Your task to perform on an android device: Go to calendar. Show me events next week Image 0: 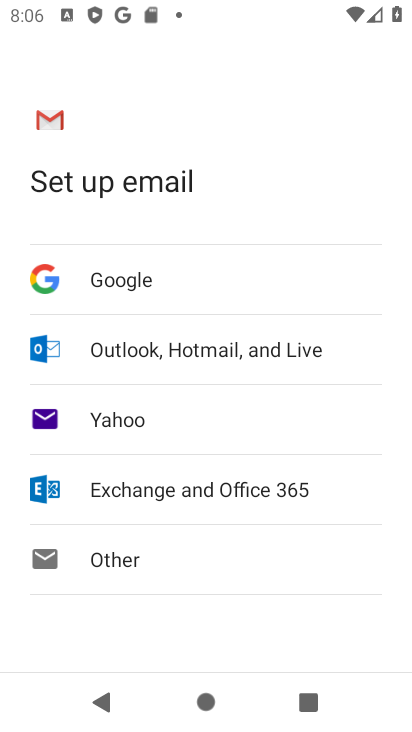
Step 0: press home button
Your task to perform on an android device: Go to calendar. Show me events next week Image 1: 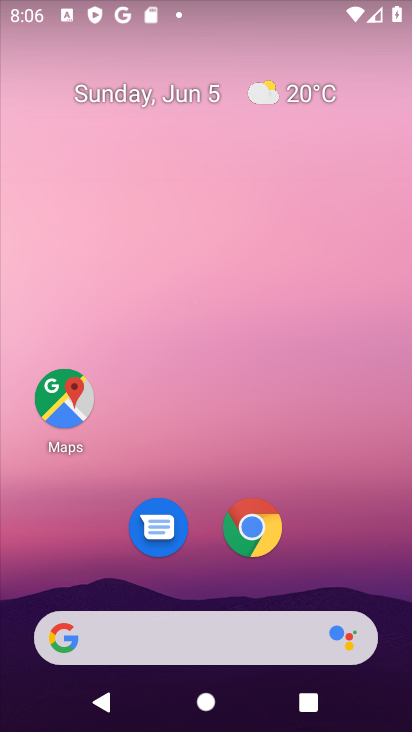
Step 1: click (147, 101)
Your task to perform on an android device: Go to calendar. Show me events next week Image 2: 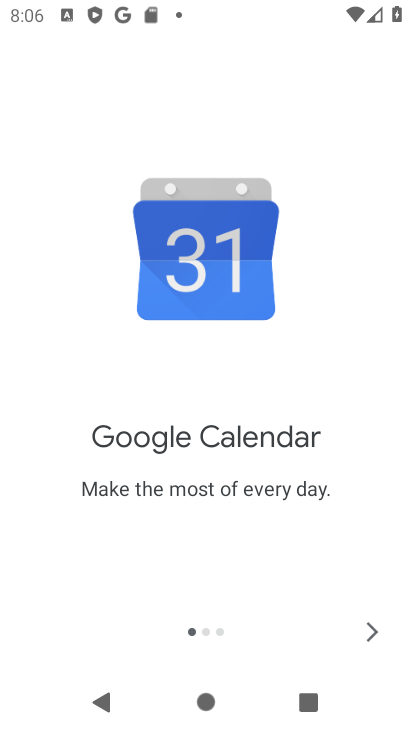
Step 2: click (376, 632)
Your task to perform on an android device: Go to calendar. Show me events next week Image 3: 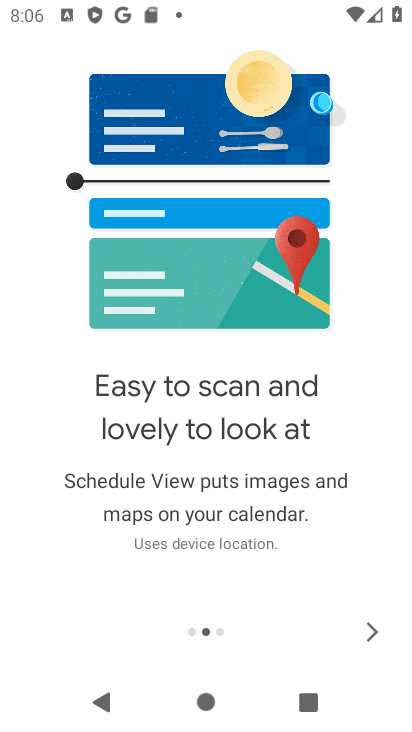
Step 3: click (376, 632)
Your task to perform on an android device: Go to calendar. Show me events next week Image 4: 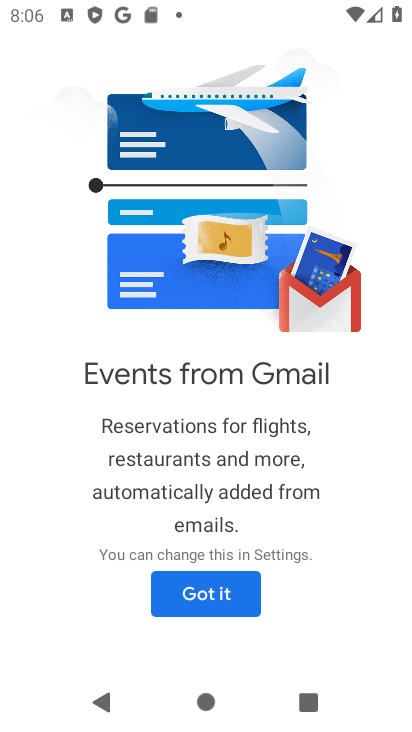
Step 4: click (188, 601)
Your task to perform on an android device: Go to calendar. Show me events next week Image 5: 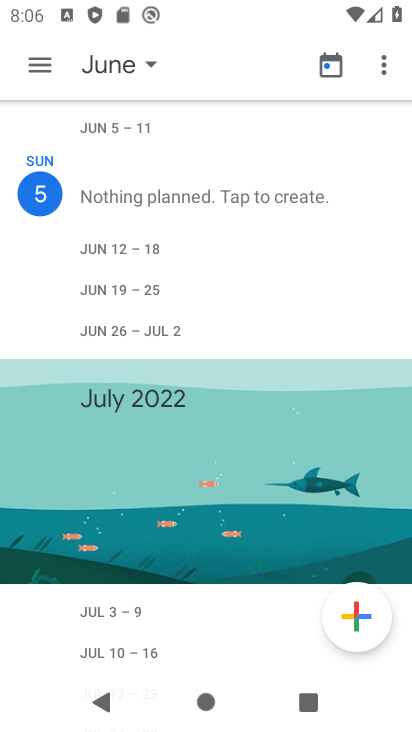
Step 5: click (139, 60)
Your task to perform on an android device: Go to calendar. Show me events next week Image 6: 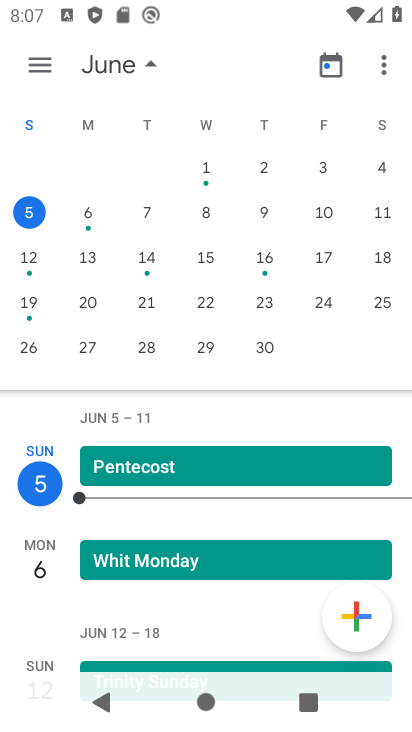
Step 6: click (273, 260)
Your task to perform on an android device: Go to calendar. Show me events next week Image 7: 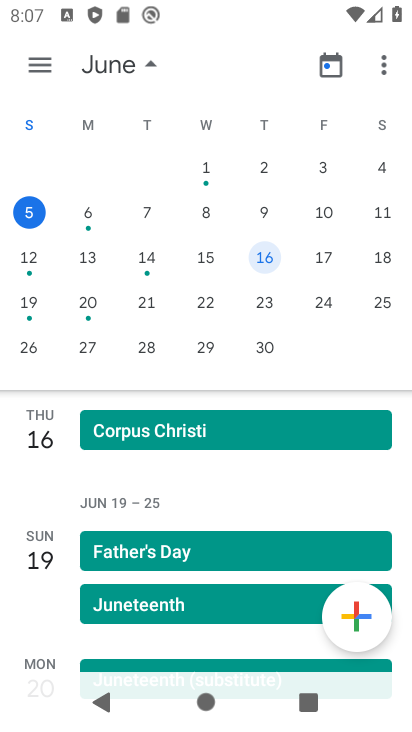
Step 7: task complete